Your task to perform on an android device: uninstall "Messages" Image 0: 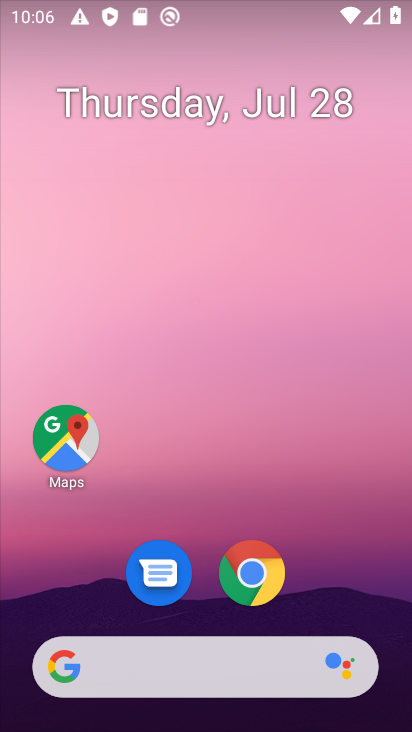
Step 0: click (153, 585)
Your task to perform on an android device: uninstall "Messages" Image 1: 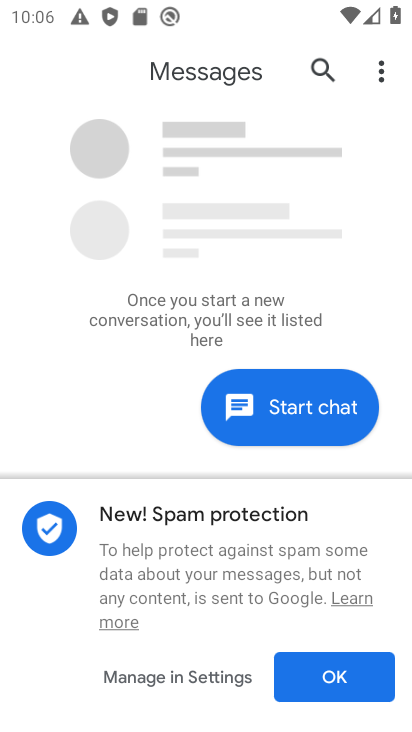
Step 1: press home button
Your task to perform on an android device: uninstall "Messages" Image 2: 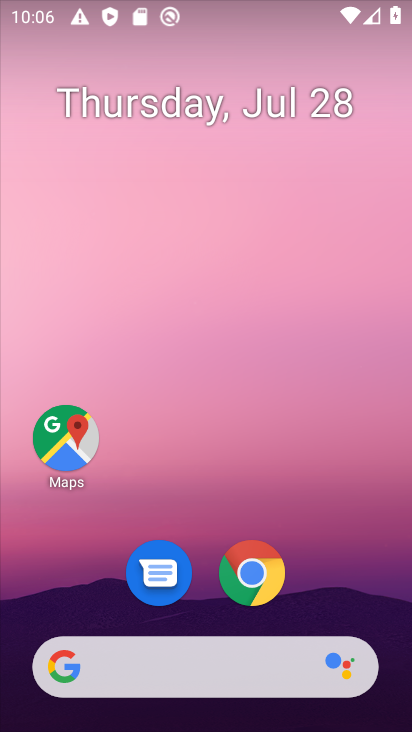
Step 2: drag from (59, 615) to (328, 0)
Your task to perform on an android device: uninstall "Messages" Image 3: 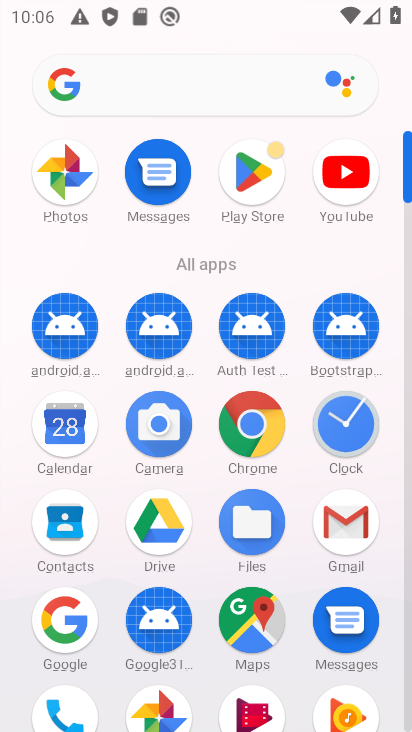
Step 3: click (259, 179)
Your task to perform on an android device: uninstall "Messages" Image 4: 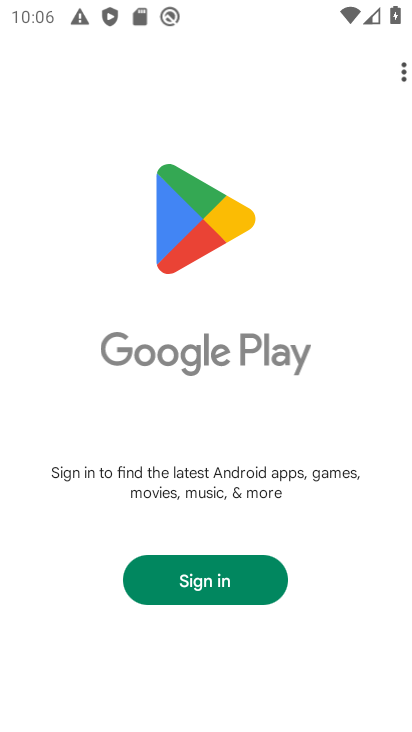
Step 4: task complete